Your task to perform on an android device: Show the shopping cart on newegg.com. Search for beats solo 3 on newegg.com, select the first entry, and add it to the cart. Image 0: 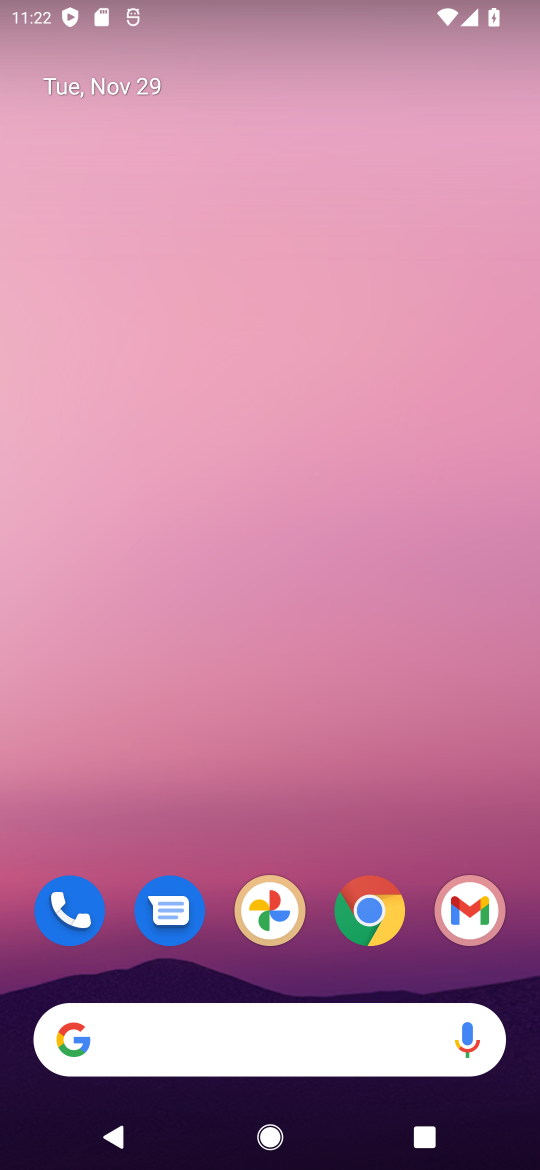
Step 0: click (379, 912)
Your task to perform on an android device: Show the shopping cart on newegg.com. Search for beats solo 3 on newegg.com, select the first entry, and add it to the cart. Image 1: 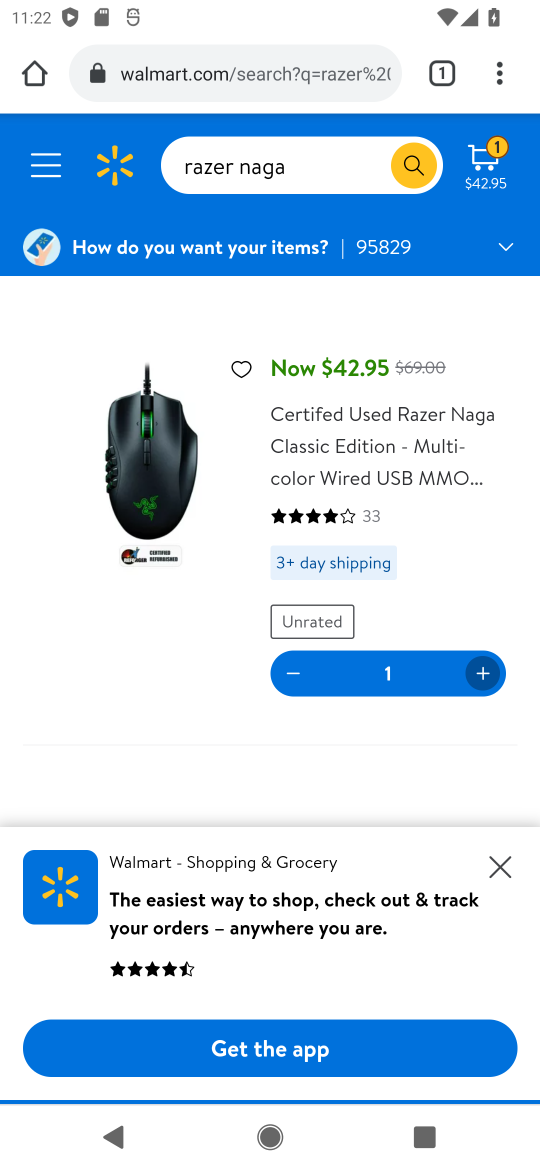
Step 1: click (254, 73)
Your task to perform on an android device: Show the shopping cart on newegg.com. Search for beats solo 3 on newegg.com, select the first entry, and add it to the cart. Image 2: 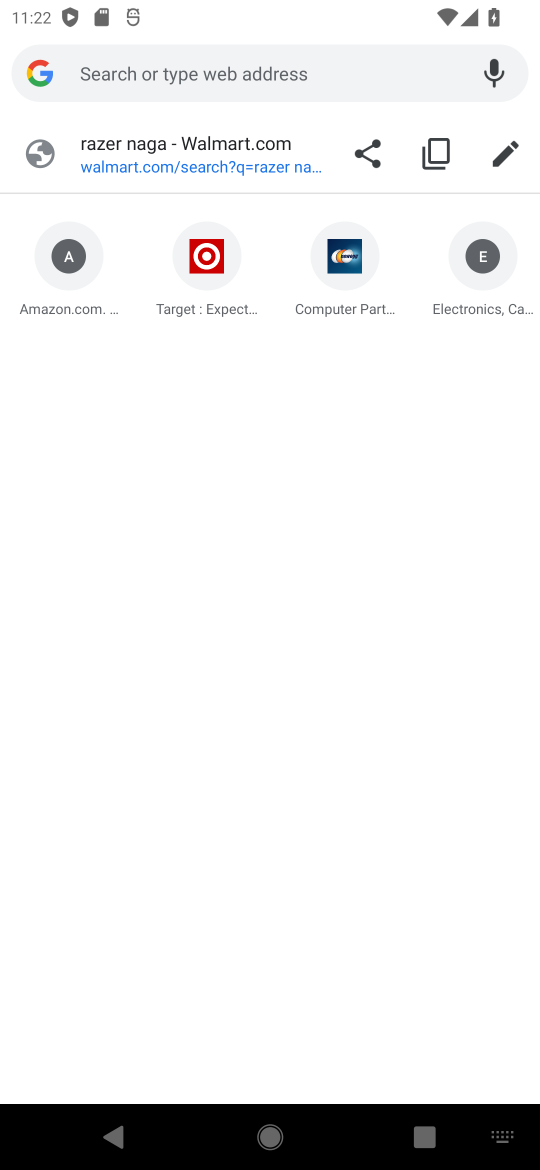
Step 2: click (343, 305)
Your task to perform on an android device: Show the shopping cart on newegg.com. Search for beats solo 3 on newegg.com, select the first entry, and add it to the cart. Image 3: 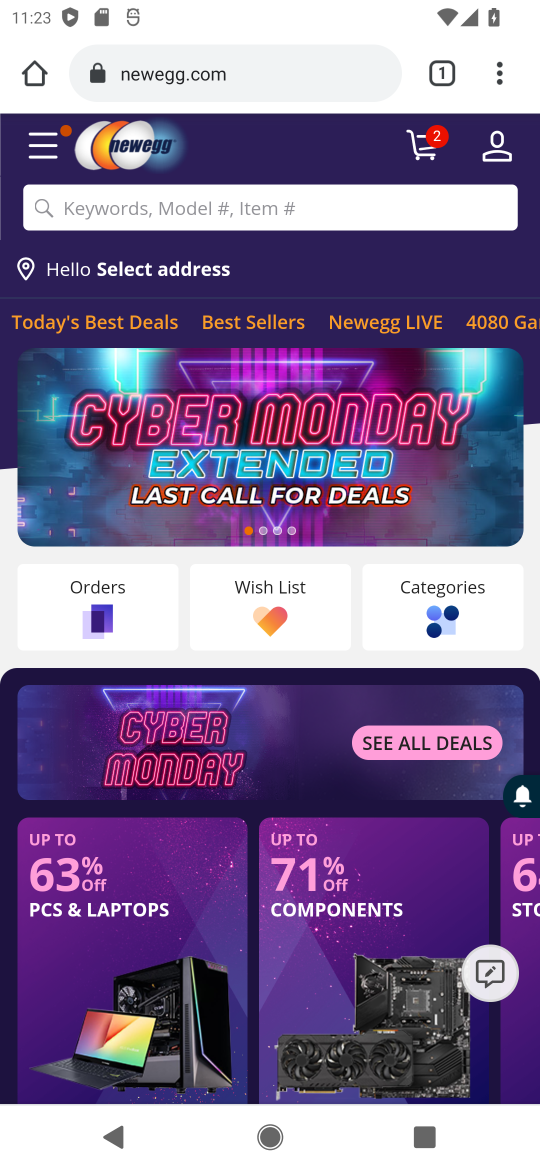
Step 3: click (421, 153)
Your task to perform on an android device: Show the shopping cart on newegg.com. Search for beats solo 3 on newegg.com, select the first entry, and add it to the cart. Image 4: 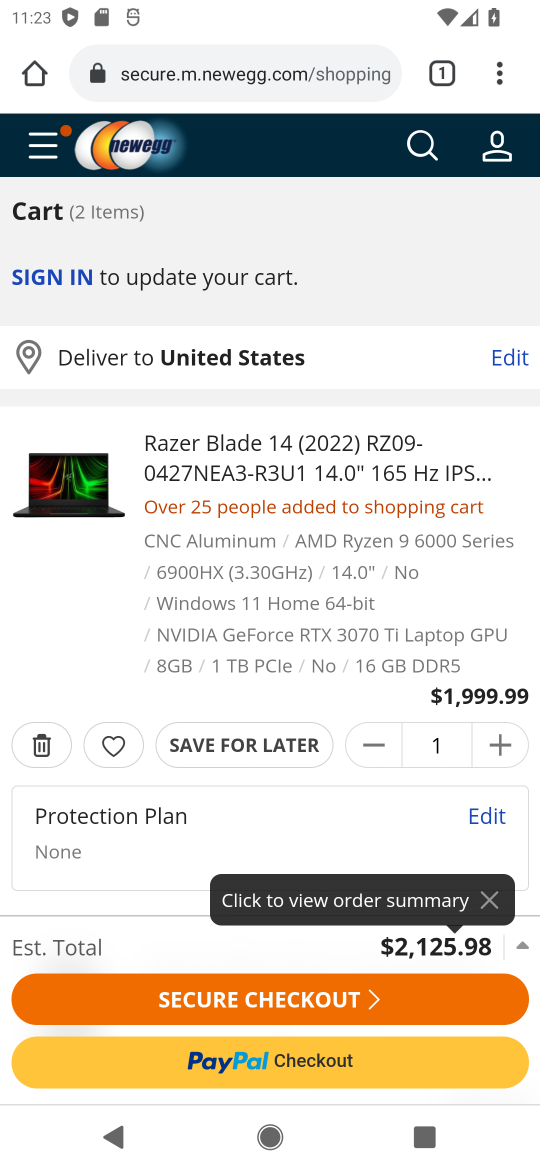
Step 4: click (423, 153)
Your task to perform on an android device: Show the shopping cart on newegg.com. Search for beats solo 3 on newegg.com, select the first entry, and add it to the cart. Image 5: 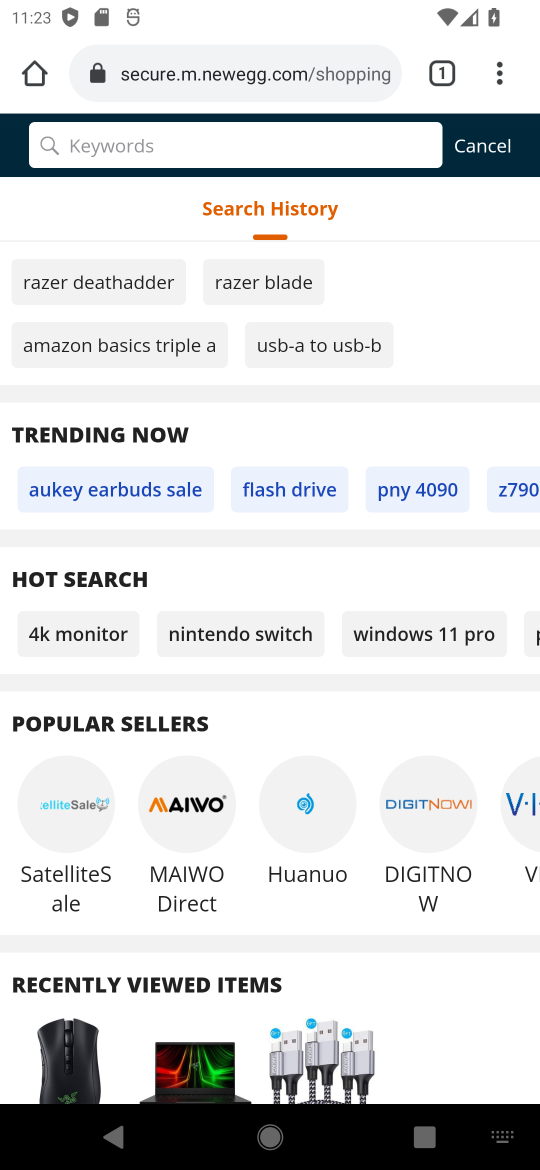
Step 5: type "beats solo 3"
Your task to perform on an android device: Show the shopping cart on newegg.com. Search for beats solo 3 on newegg.com, select the first entry, and add it to the cart. Image 6: 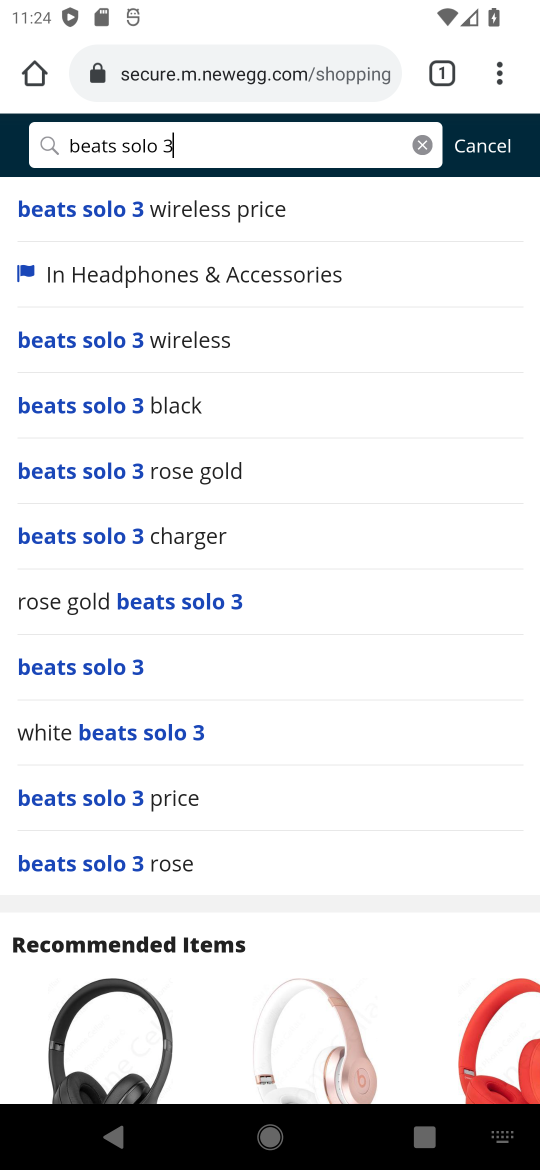
Step 6: click (114, 339)
Your task to perform on an android device: Show the shopping cart on newegg.com. Search for beats solo 3 on newegg.com, select the first entry, and add it to the cart. Image 7: 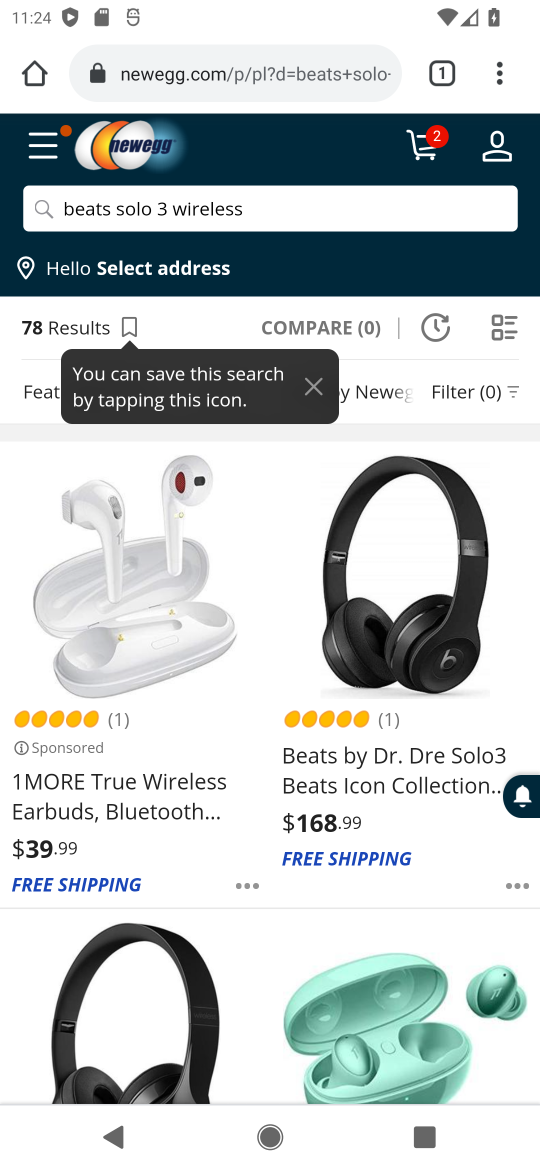
Step 7: task complete